Your task to perform on an android device: toggle translation in the chrome app Image 0: 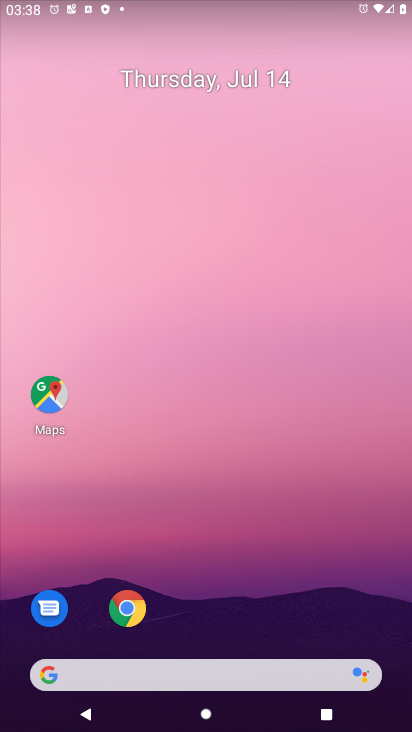
Step 0: click (128, 608)
Your task to perform on an android device: toggle translation in the chrome app Image 1: 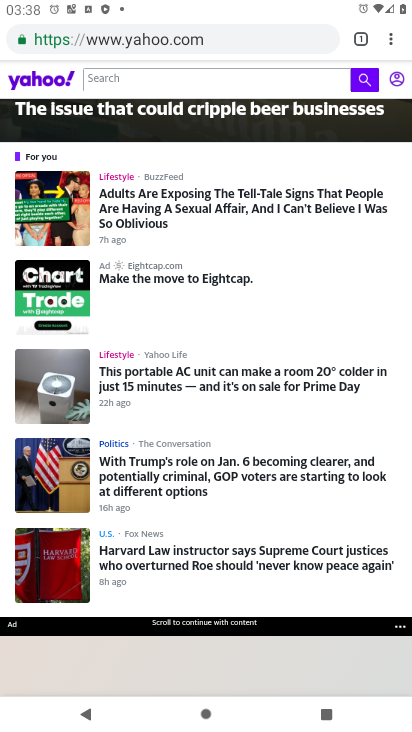
Step 1: click (389, 44)
Your task to perform on an android device: toggle translation in the chrome app Image 2: 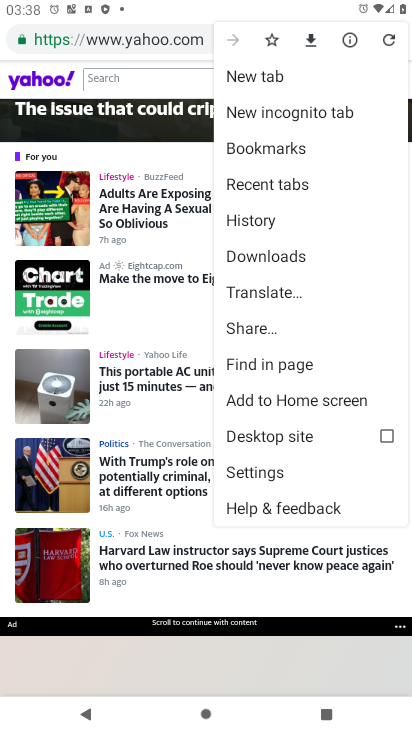
Step 2: click (265, 466)
Your task to perform on an android device: toggle translation in the chrome app Image 3: 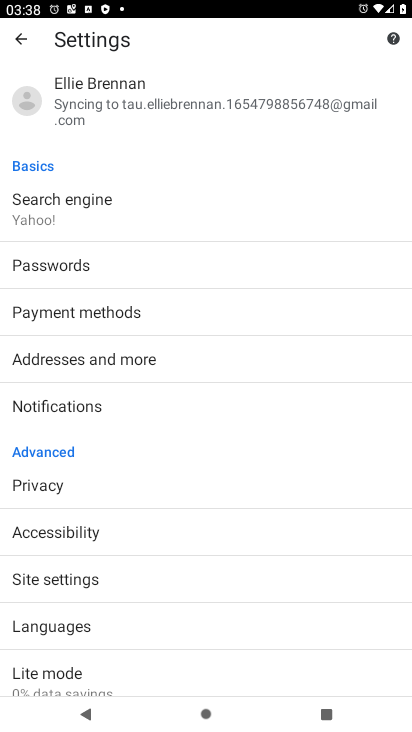
Step 3: click (52, 625)
Your task to perform on an android device: toggle translation in the chrome app Image 4: 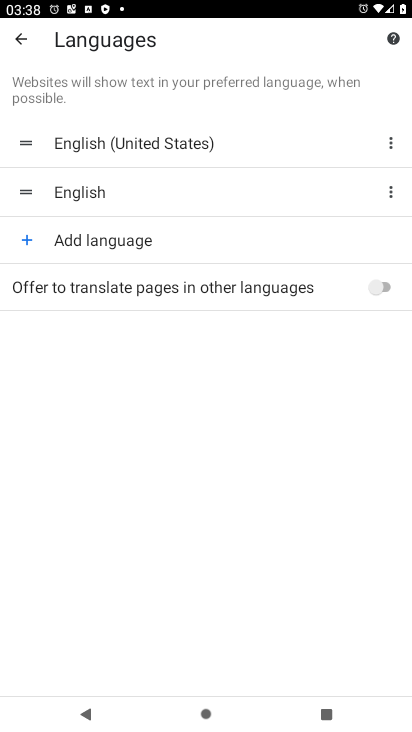
Step 4: click (387, 286)
Your task to perform on an android device: toggle translation in the chrome app Image 5: 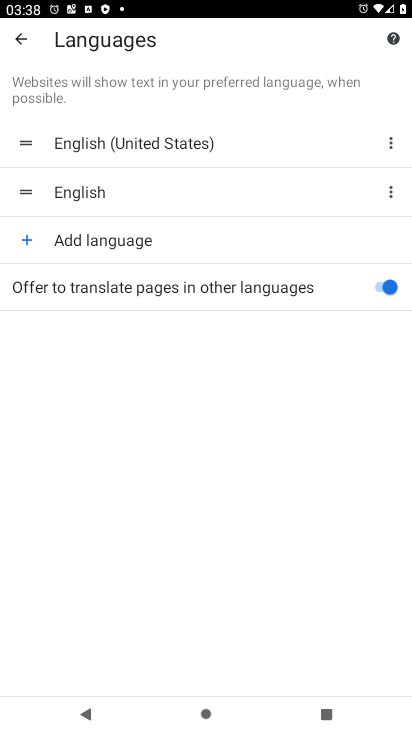
Step 5: task complete